Your task to perform on an android device: Go to Google Image 0: 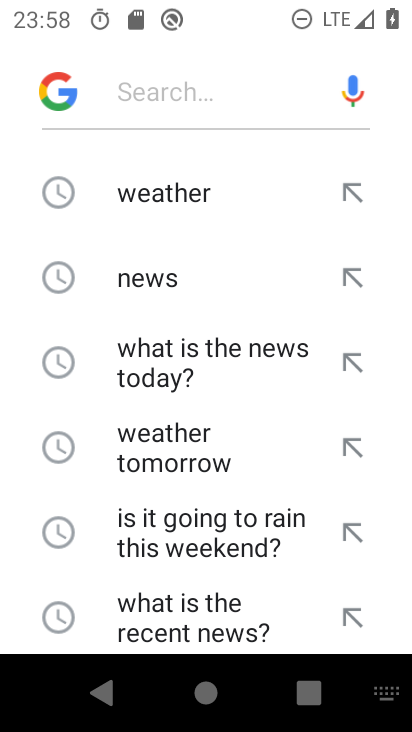
Step 0: press home button
Your task to perform on an android device: Go to Google Image 1: 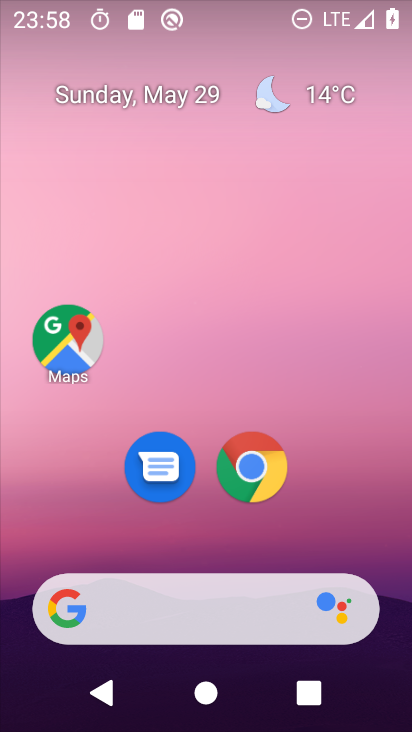
Step 1: drag from (198, 536) to (225, 103)
Your task to perform on an android device: Go to Google Image 2: 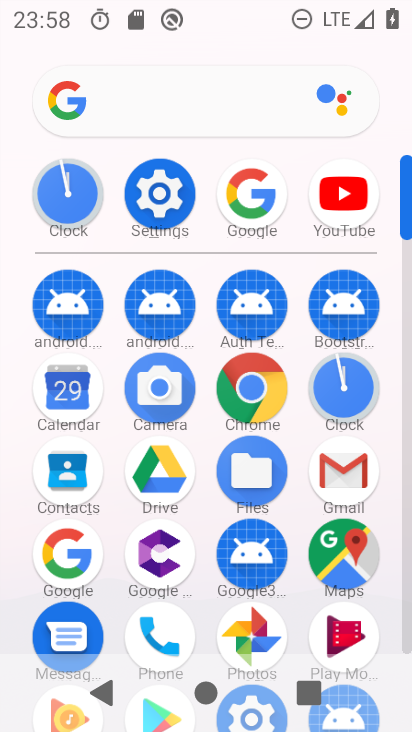
Step 2: click (245, 200)
Your task to perform on an android device: Go to Google Image 3: 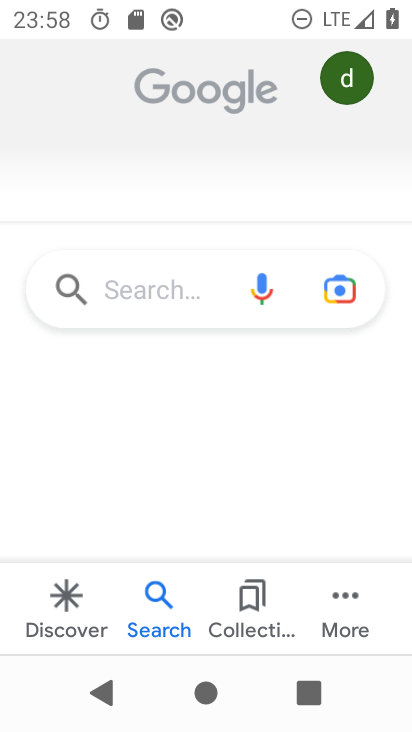
Step 3: task complete